Your task to perform on an android device: Search for sushi restaurants on Maps Image 0: 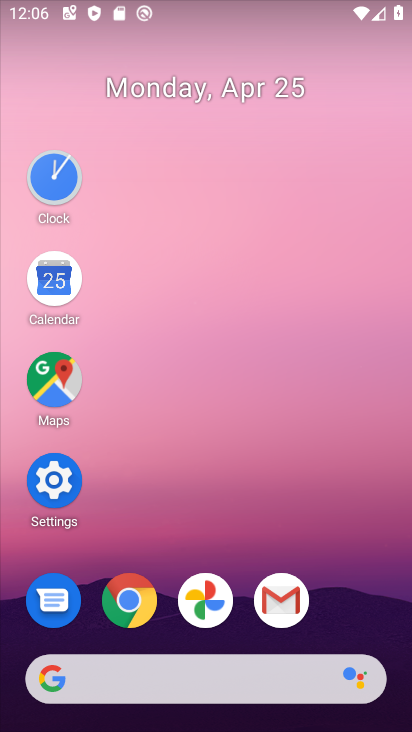
Step 0: click (105, 444)
Your task to perform on an android device: Search for sushi restaurants on Maps Image 1: 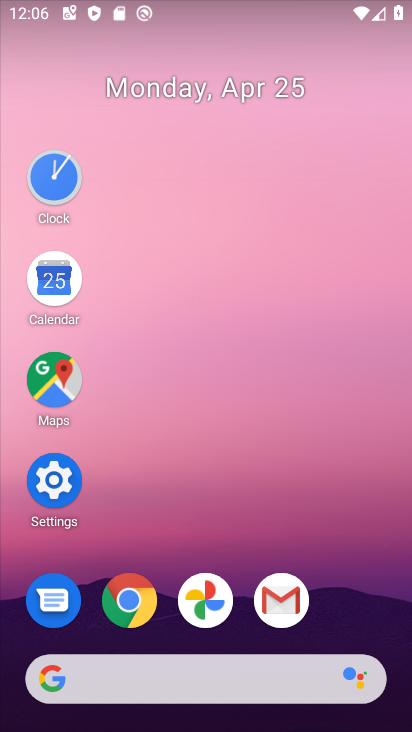
Step 1: click (54, 370)
Your task to perform on an android device: Search for sushi restaurants on Maps Image 2: 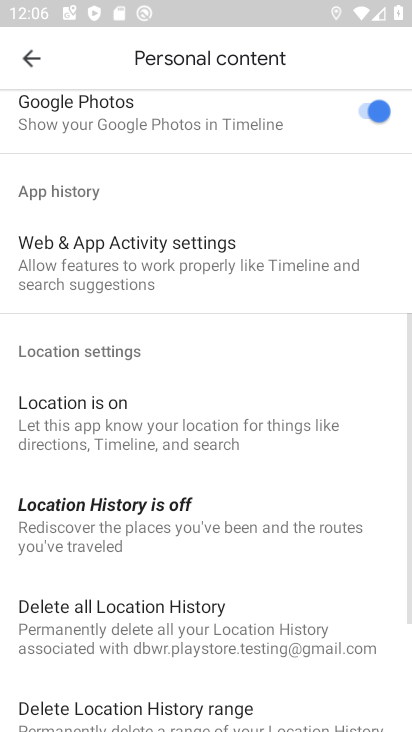
Step 2: click (24, 56)
Your task to perform on an android device: Search for sushi restaurants on Maps Image 3: 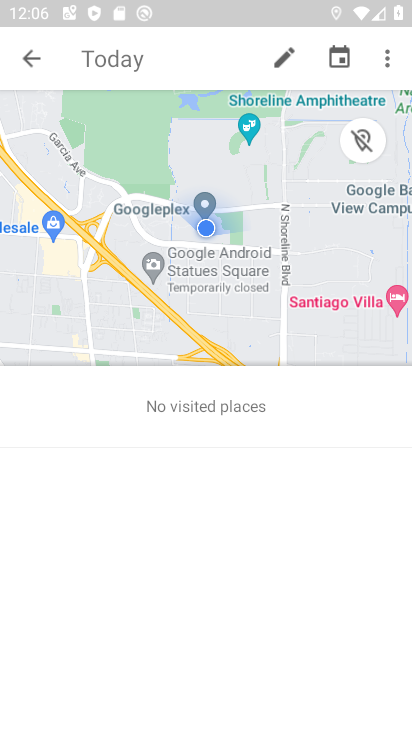
Step 3: click (34, 57)
Your task to perform on an android device: Search for sushi restaurants on Maps Image 4: 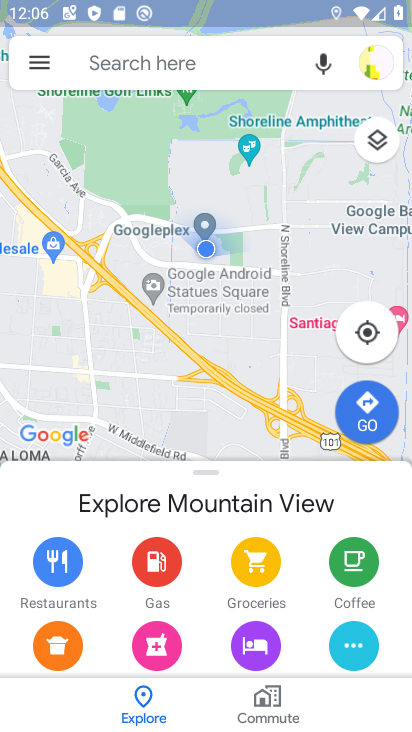
Step 4: click (154, 61)
Your task to perform on an android device: Search for sushi restaurants on Maps Image 5: 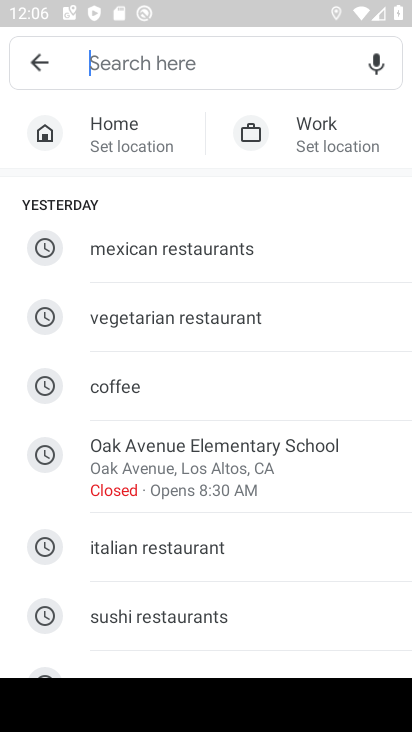
Step 5: click (182, 611)
Your task to perform on an android device: Search for sushi restaurants on Maps Image 6: 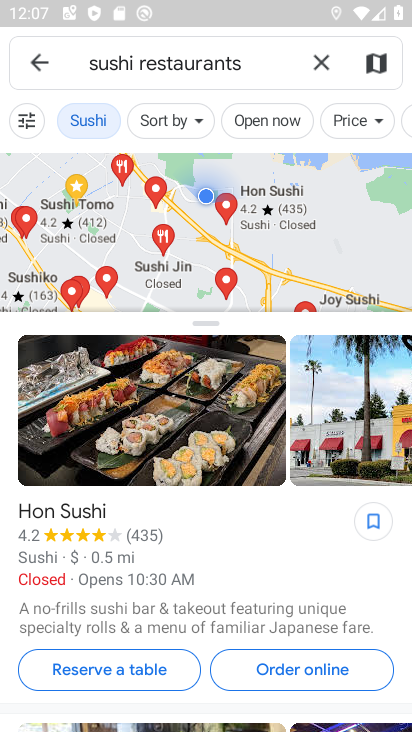
Step 6: task complete